Your task to perform on an android device: Open Google Chrome and open the bookmarks view Image 0: 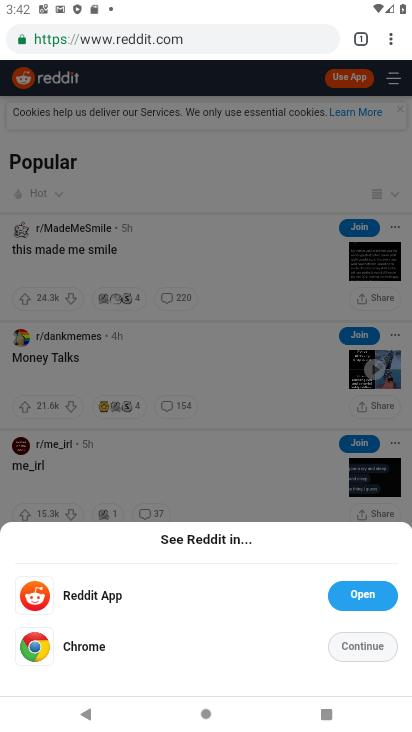
Step 0: press home button
Your task to perform on an android device: Open Google Chrome and open the bookmarks view Image 1: 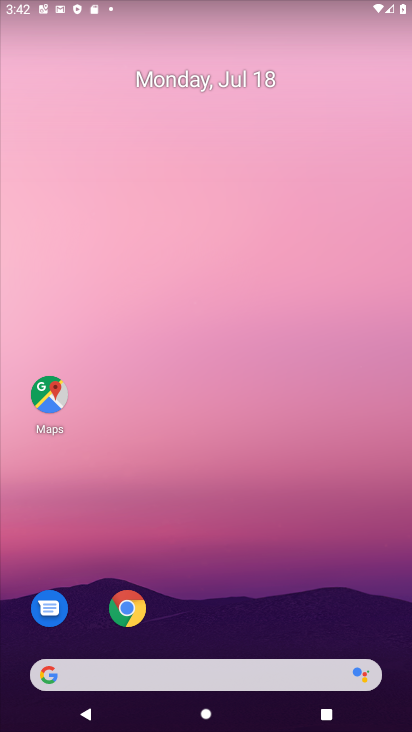
Step 1: drag from (220, 557) to (251, 164)
Your task to perform on an android device: Open Google Chrome and open the bookmarks view Image 2: 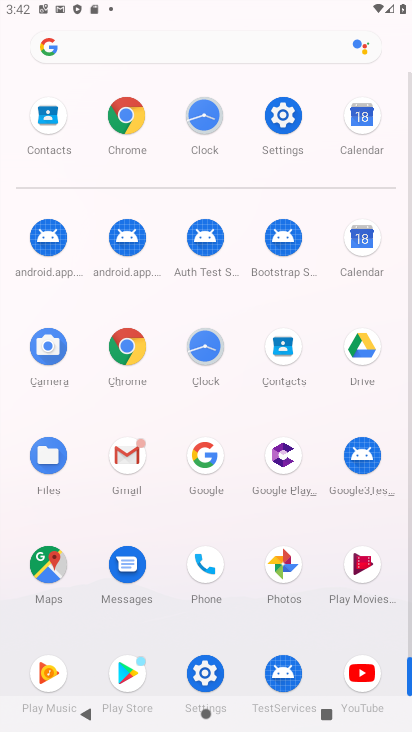
Step 2: click (136, 354)
Your task to perform on an android device: Open Google Chrome and open the bookmarks view Image 3: 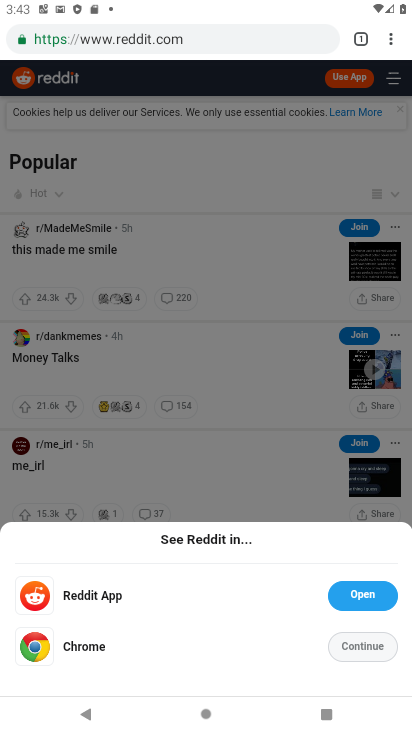
Step 3: click (391, 40)
Your task to perform on an android device: Open Google Chrome and open the bookmarks view Image 4: 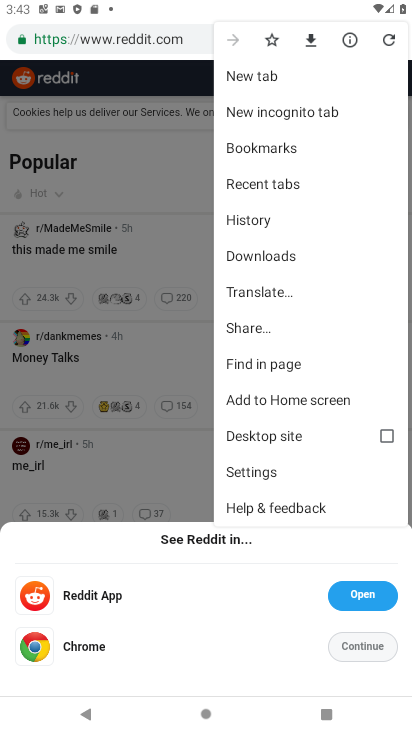
Step 4: click (267, 144)
Your task to perform on an android device: Open Google Chrome and open the bookmarks view Image 5: 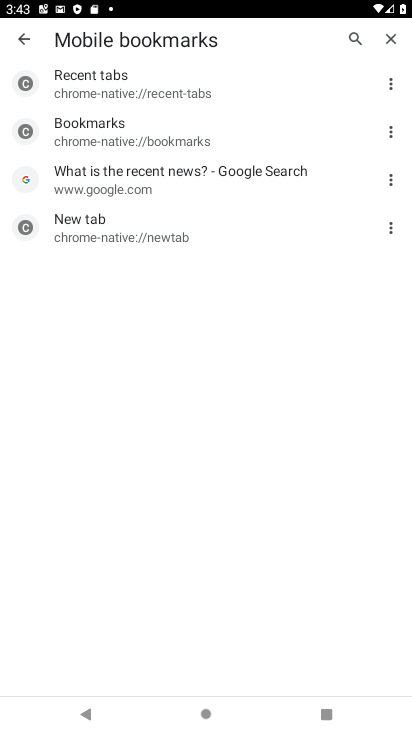
Step 5: task complete